Your task to perform on an android device: snooze an email in the gmail app Image 0: 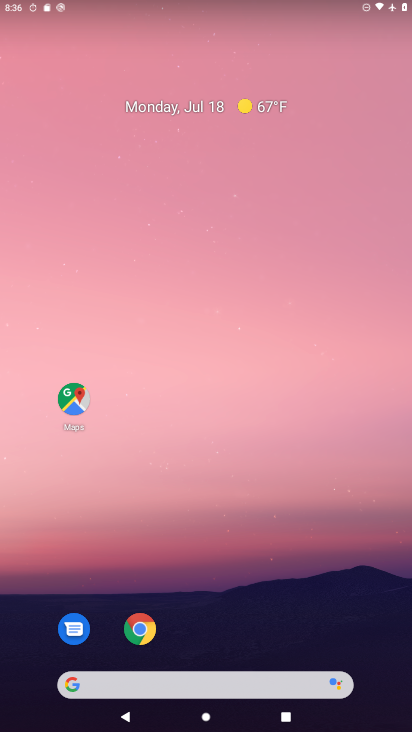
Step 0: drag from (217, 434) to (176, 144)
Your task to perform on an android device: snooze an email in the gmail app Image 1: 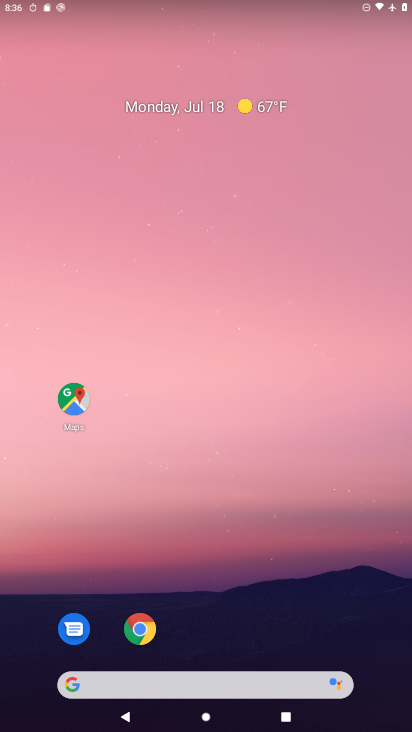
Step 1: drag from (190, 660) to (121, 59)
Your task to perform on an android device: snooze an email in the gmail app Image 2: 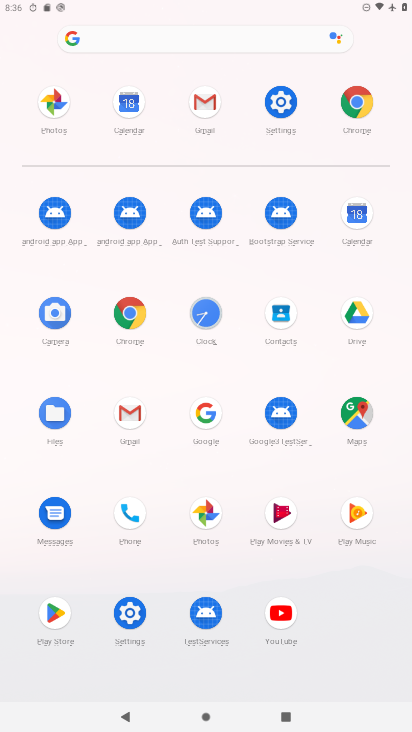
Step 2: click (139, 403)
Your task to perform on an android device: snooze an email in the gmail app Image 3: 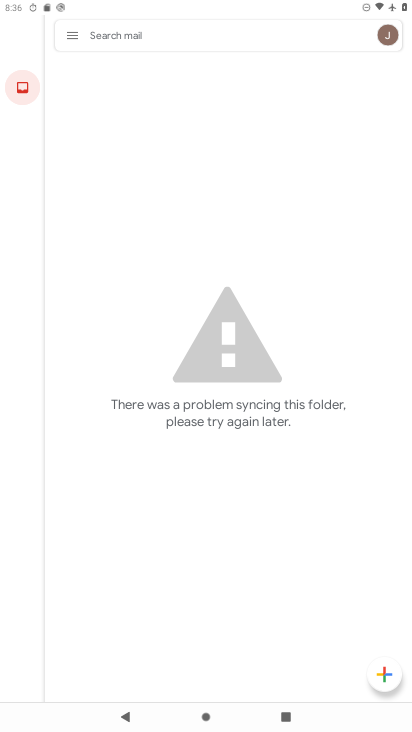
Step 3: click (68, 44)
Your task to perform on an android device: snooze an email in the gmail app Image 4: 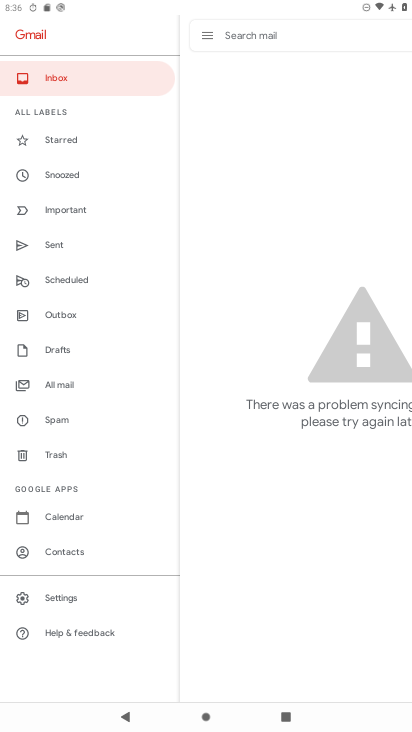
Step 4: task complete